Your task to perform on an android device: Open battery settings Image 0: 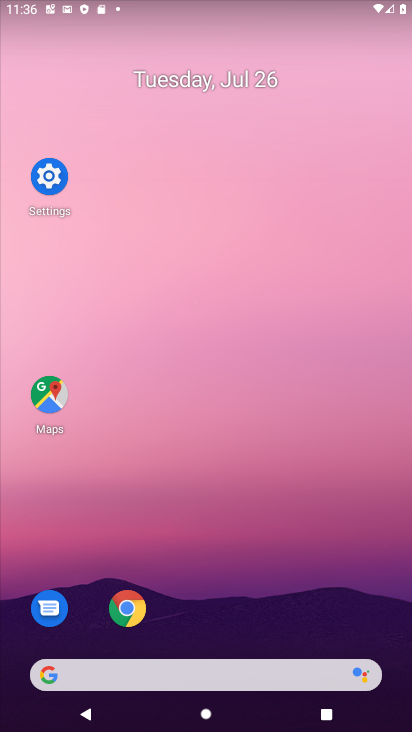
Step 0: click (40, 189)
Your task to perform on an android device: Open battery settings Image 1: 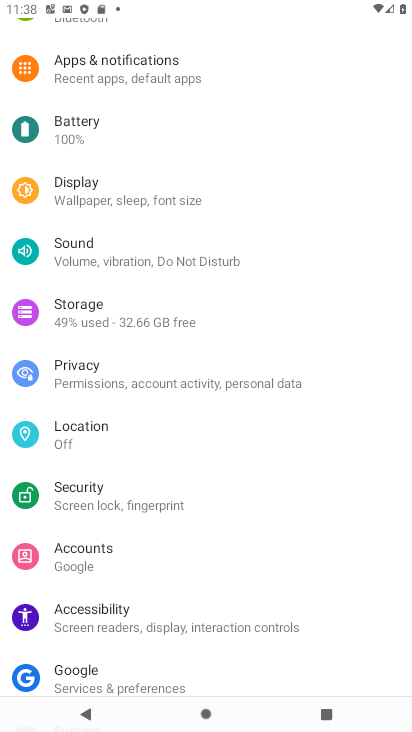
Step 1: click (95, 127)
Your task to perform on an android device: Open battery settings Image 2: 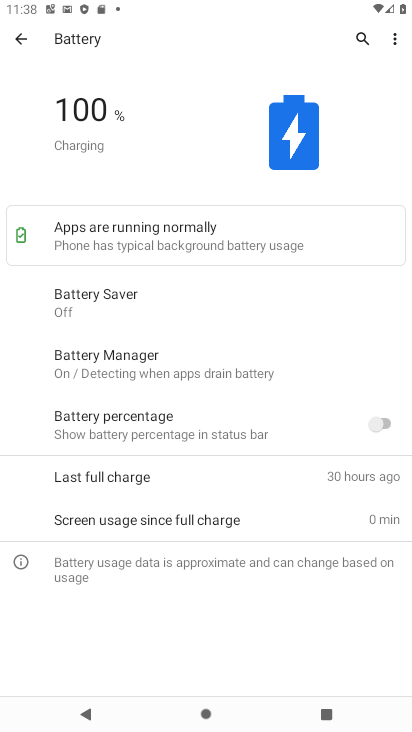
Step 2: task complete